Your task to perform on an android device: uninstall "Paramount+ | Peak Streaming" Image 0: 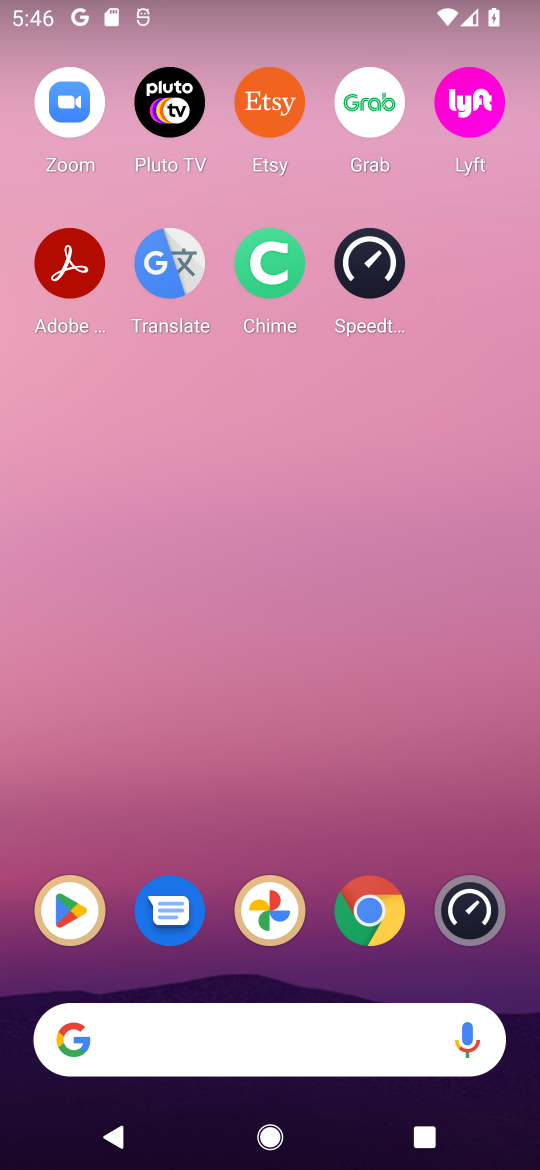
Step 0: click (73, 903)
Your task to perform on an android device: uninstall "Paramount+ | Peak Streaming" Image 1: 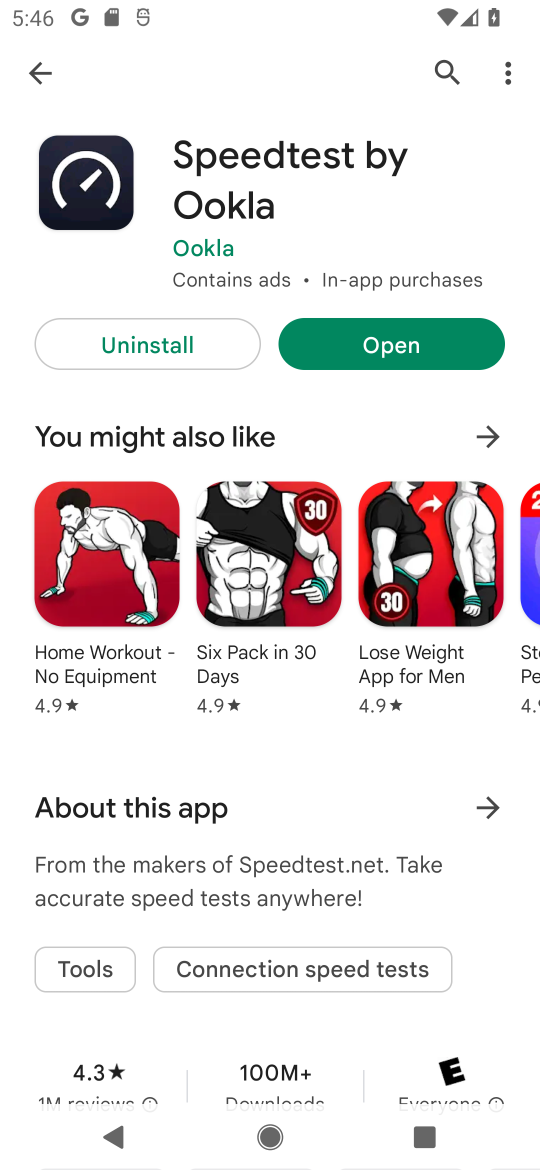
Step 1: click (450, 56)
Your task to perform on an android device: uninstall "Paramount+ | Peak Streaming" Image 2: 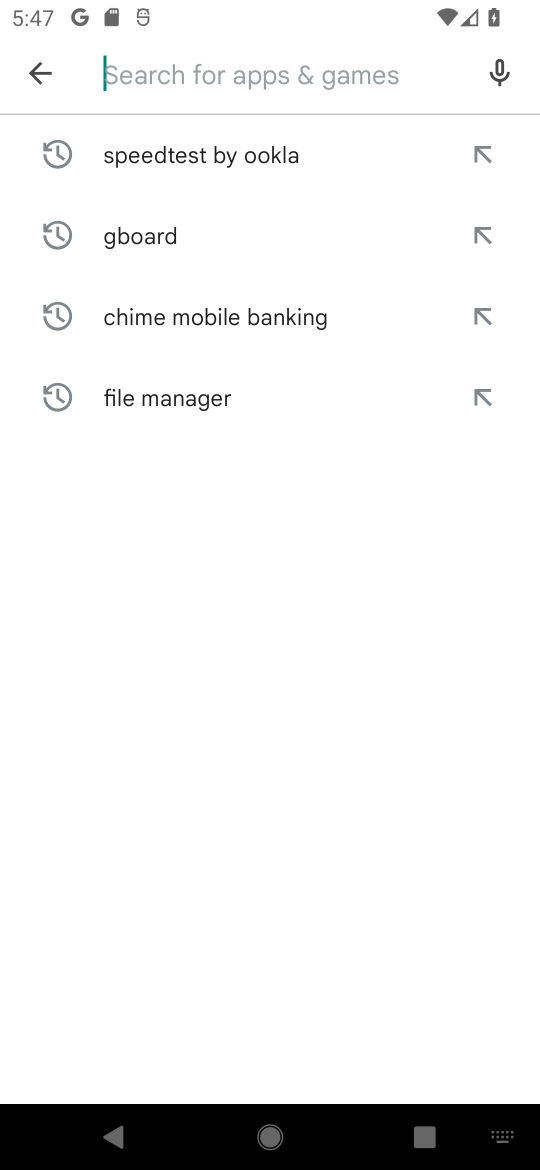
Step 2: type "paramount+ peak streaming"
Your task to perform on an android device: uninstall "Paramount+ | Peak Streaming" Image 3: 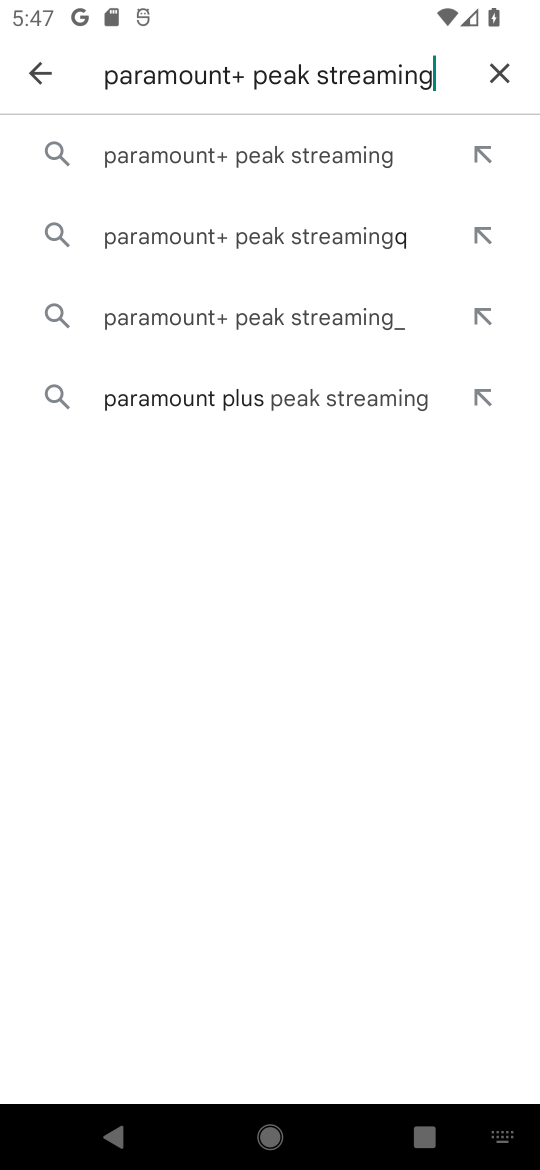
Step 3: click (373, 148)
Your task to perform on an android device: uninstall "Paramount+ | Peak Streaming" Image 4: 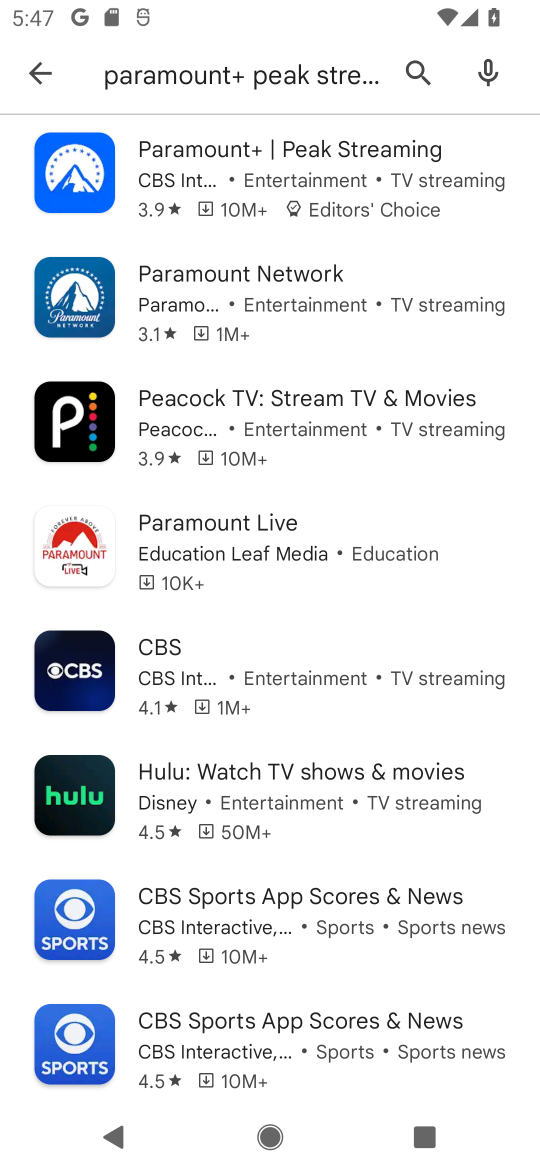
Step 4: click (248, 182)
Your task to perform on an android device: uninstall "Paramount+ | Peak Streaming" Image 5: 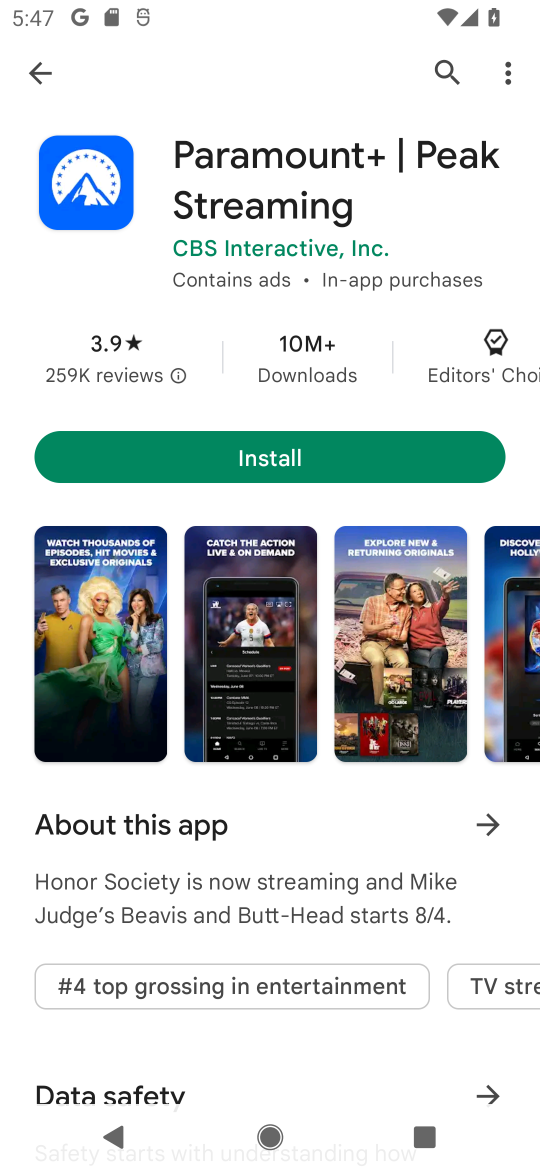
Step 5: task complete